Your task to perform on an android device: toggle improve location accuracy Image 0: 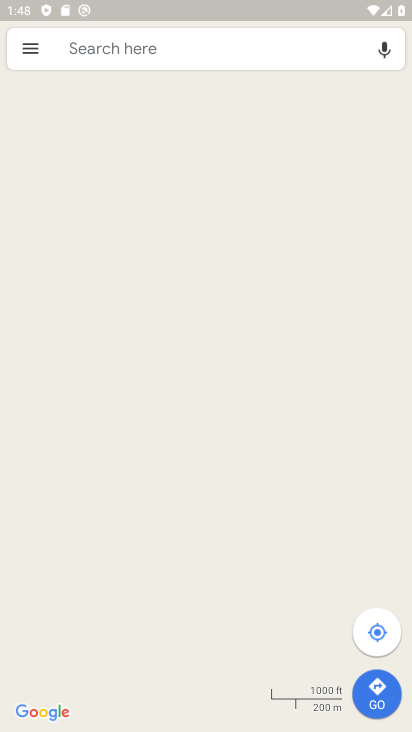
Step 0: press home button
Your task to perform on an android device: toggle improve location accuracy Image 1: 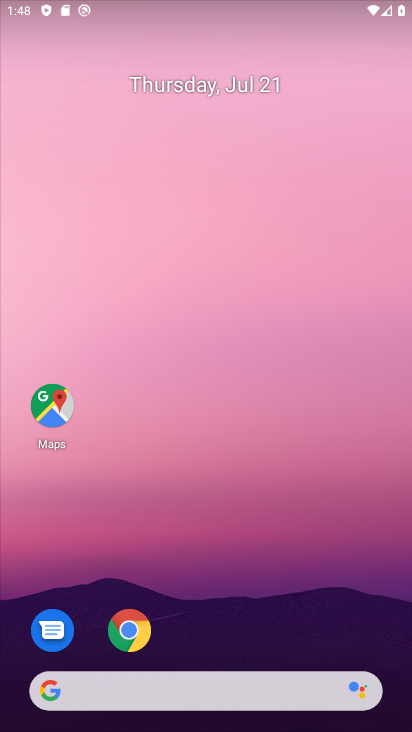
Step 1: drag from (225, 642) to (266, 17)
Your task to perform on an android device: toggle improve location accuracy Image 2: 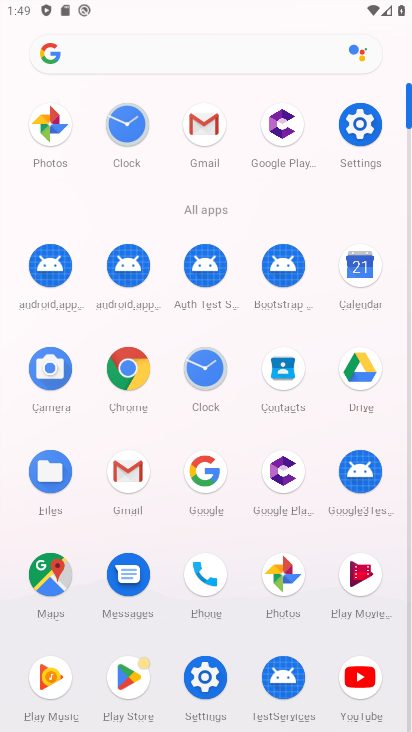
Step 2: click (356, 125)
Your task to perform on an android device: toggle improve location accuracy Image 3: 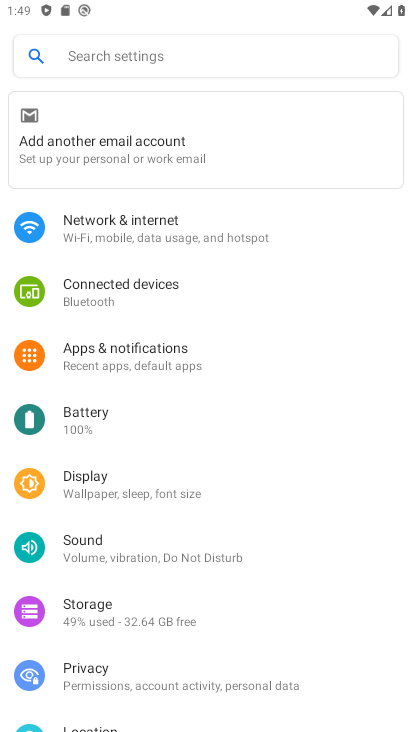
Step 3: drag from (117, 679) to (141, 465)
Your task to perform on an android device: toggle improve location accuracy Image 4: 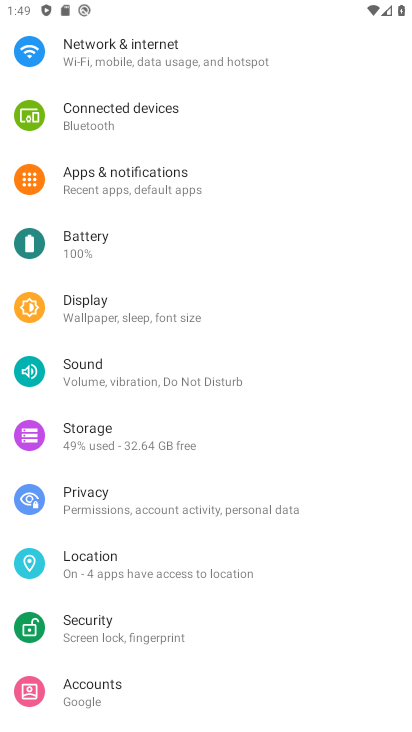
Step 4: click (139, 558)
Your task to perform on an android device: toggle improve location accuracy Image 5: 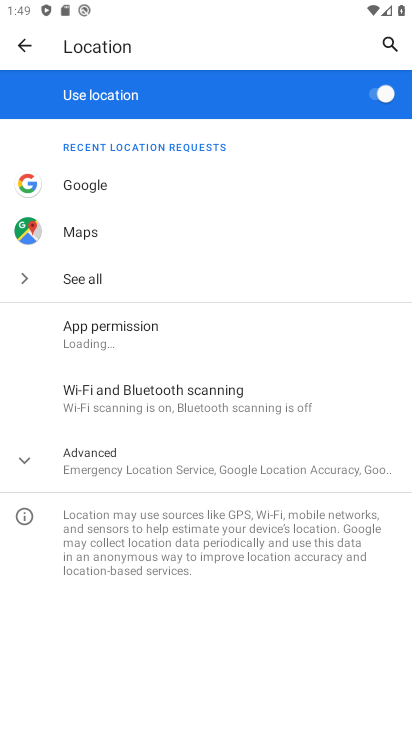
Step 5: click (106, 457)
Your task to perform on an android device: toggle improve location accuracy Image 6: 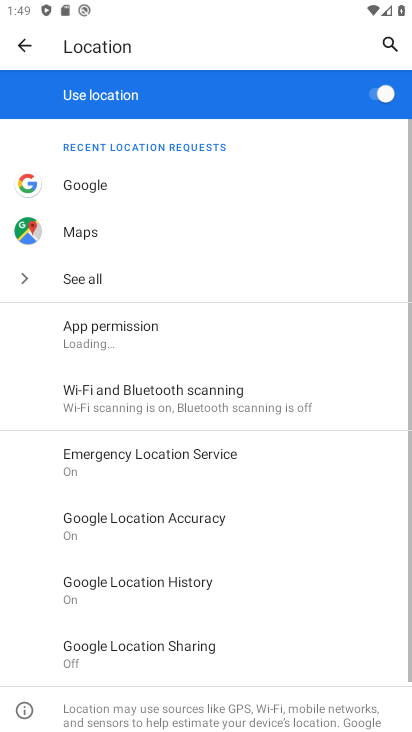
Step 6: click (169, 529)
Your task to perform on an android device: toggle improve location accuracy Image 7: 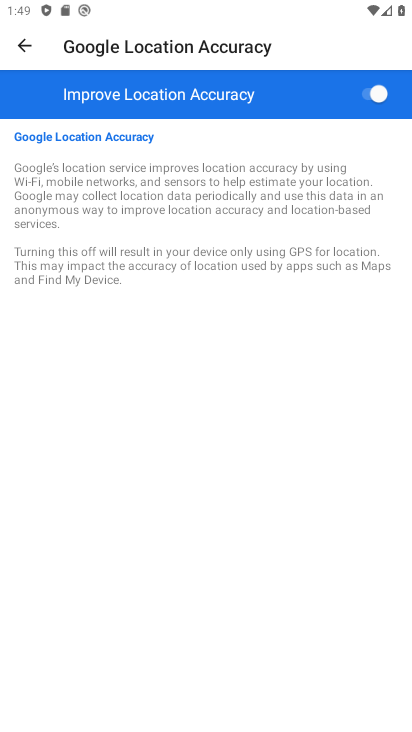
Step 7: click (383, 87)
Your task to perform on an android device: toggle improve location accuracy Image 8: 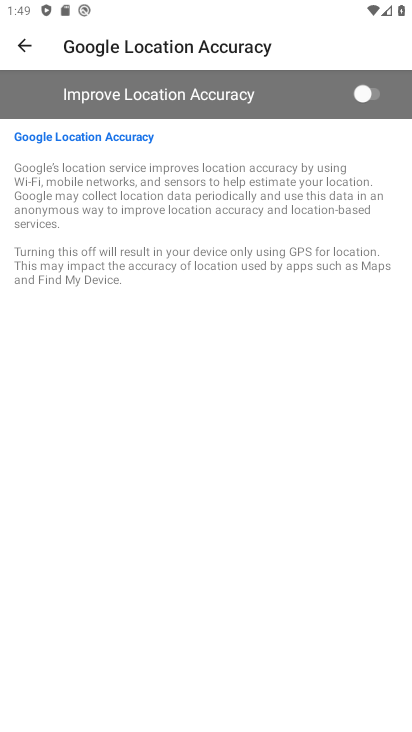
Step 8: task complete